Your task to perform on an android device: create a new album in the google photos Image 0: 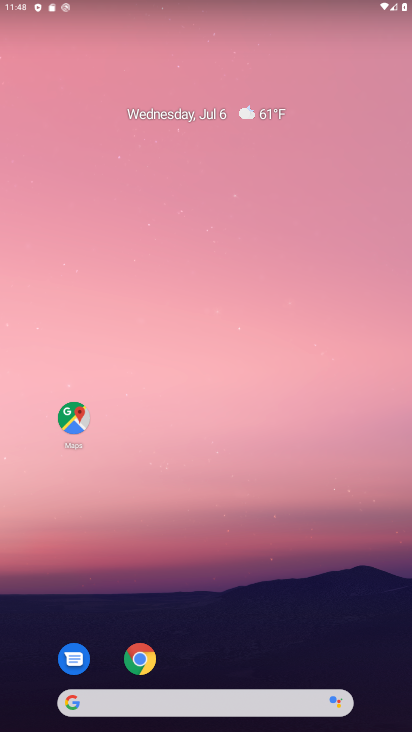
Step 0: drag from (299, 587) to (232, 6)
Your task to perform on an android device: create a new album in the google photos Image 1: 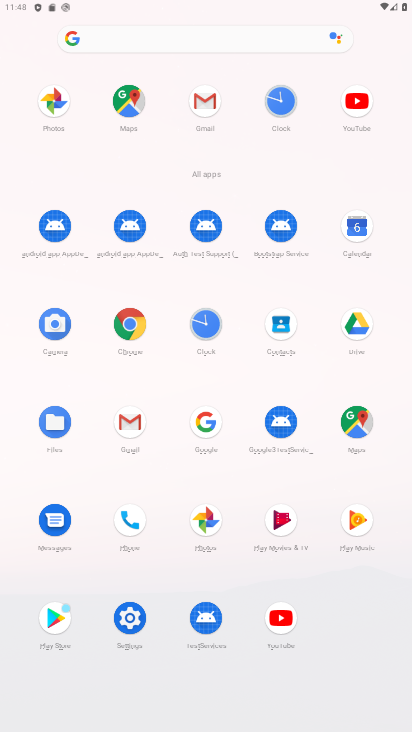
Step 1: click (52, 95)
Your task to perform on an android device: create a new album in the google photos Image 2: 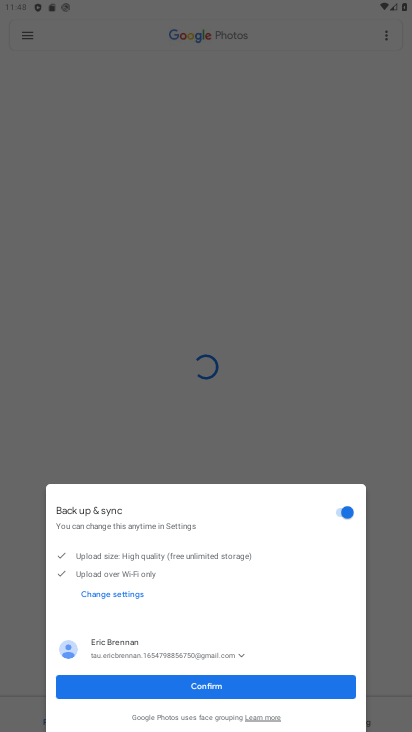
Step 2: click (247, 685)
Your task to perform on an android device: create a new album in the google photos Image 3: 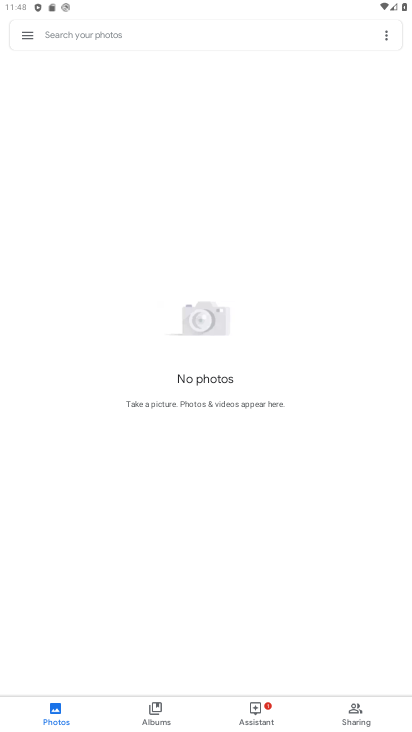
Step 3: click (26, 35)
Your task to perform on an android device: create a new album in the google photos Image 4: 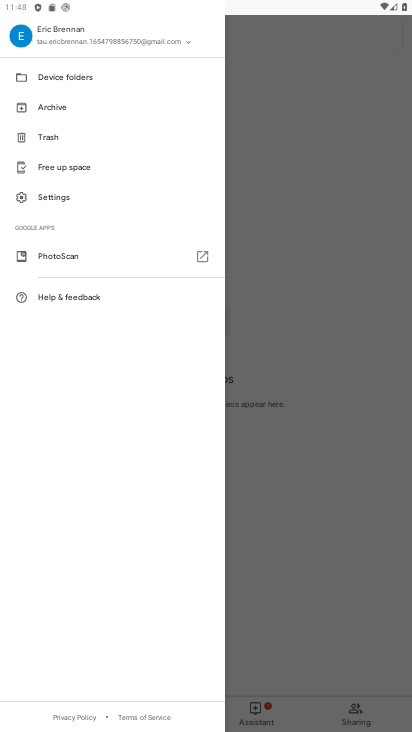
Step 4: task complete